Your task to perform on an android device: find snoozed emails in the gmail app Image 0: 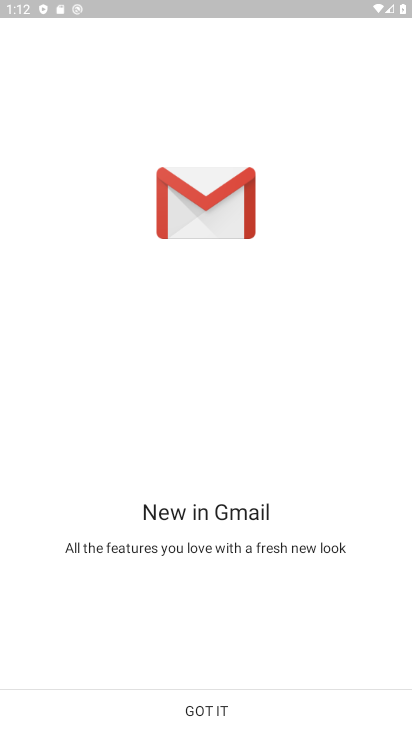
Step 0: press home button
Your task to perform on an android device: find snoozed emails in the gmail app Image 1: 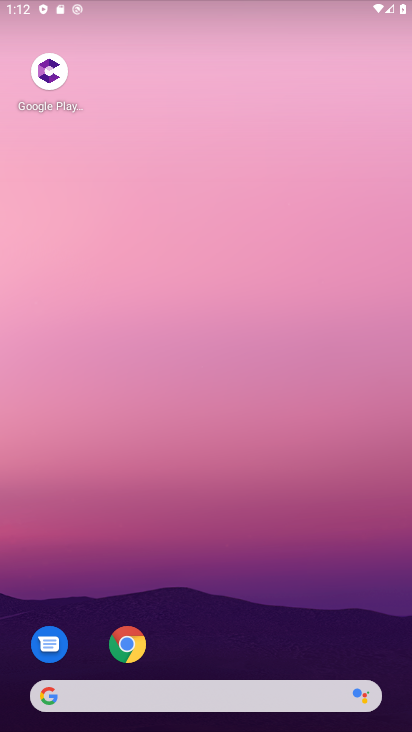
Step 1: drag from (355, 580) to (280, 180)
Your task to perform on an android device: find snoozed emails in the gmail app Image 2: 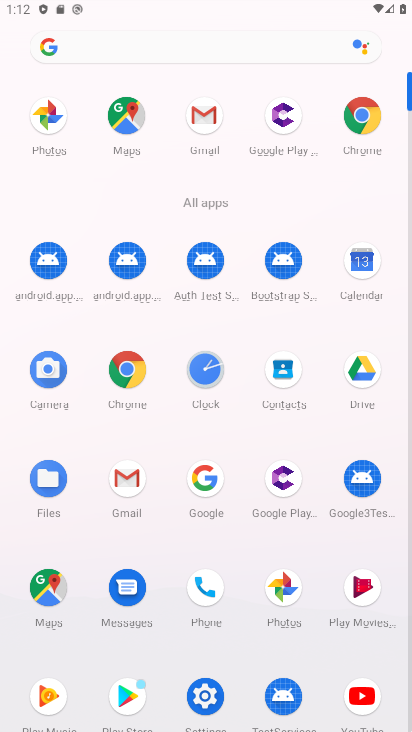
Step 2: click (188, 131)
Your task to perform on an android device: find snoozed emails in the gmail app Image 3: 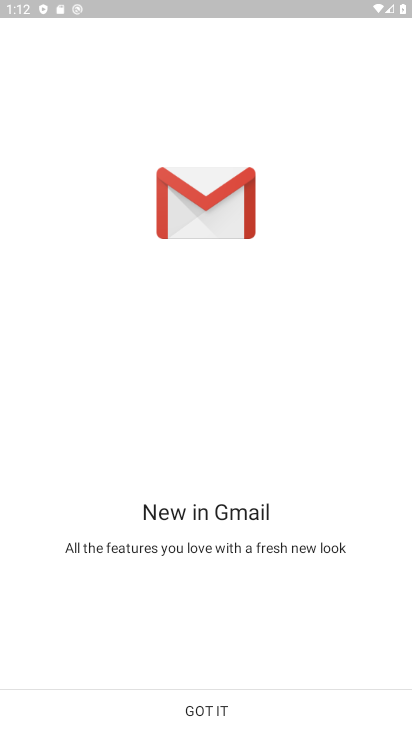
Step 3: click (258, 710)
Your task to perform on an android device: find snoozed emails in the gmail app Image 4: 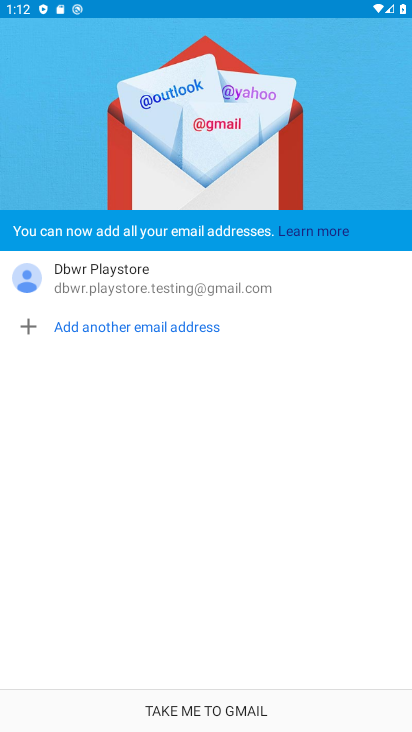
Step 4: click (259, 708)
Your task to perform on an android device: find snoozed emails in the gmail app Image 5: 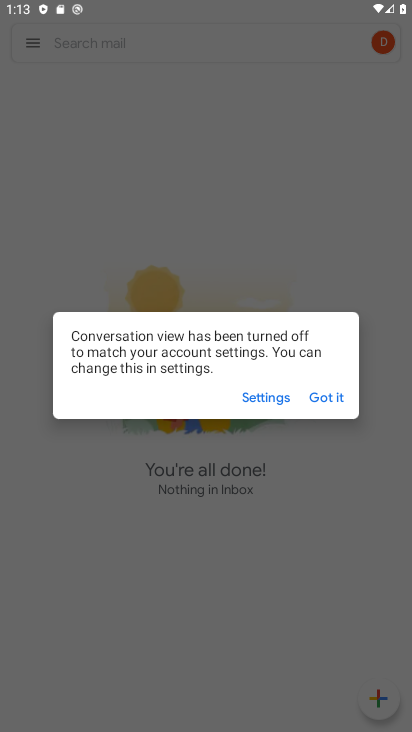
Step 5: click (334, 394)
Your task to perform on an android device: find snoozed emails in the gmail app Image 6: 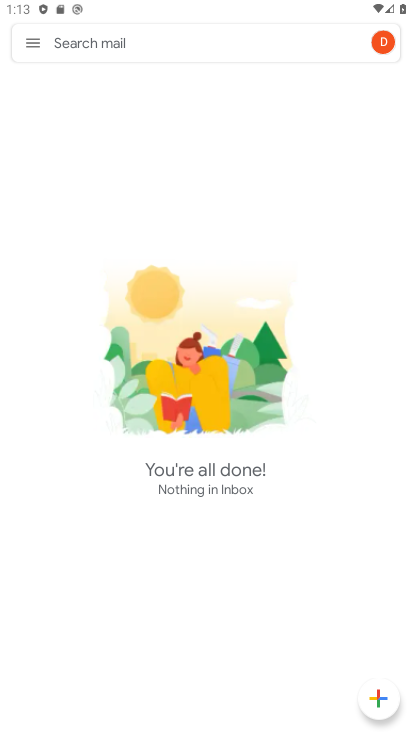
Step 6: click (33, 43)
Your task to perform on an android device: find snoozed emails in the gmail app Image 7: 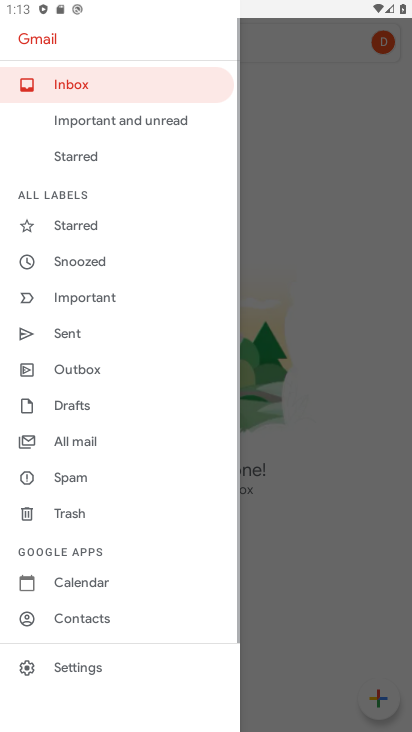
Step 7: click (110, 267)
Your task to perform on an android device: find snoozed emails in the gmail app Image 8: 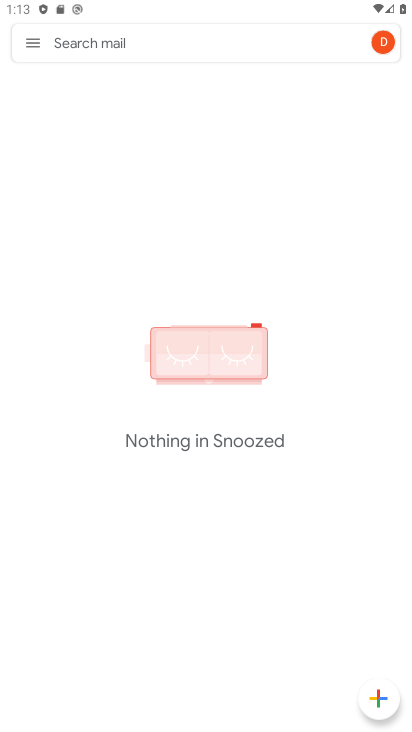
Step 8: task complete